Your task to perform on an android device: Open Youtube and go to the subscriptions tab Image 0: 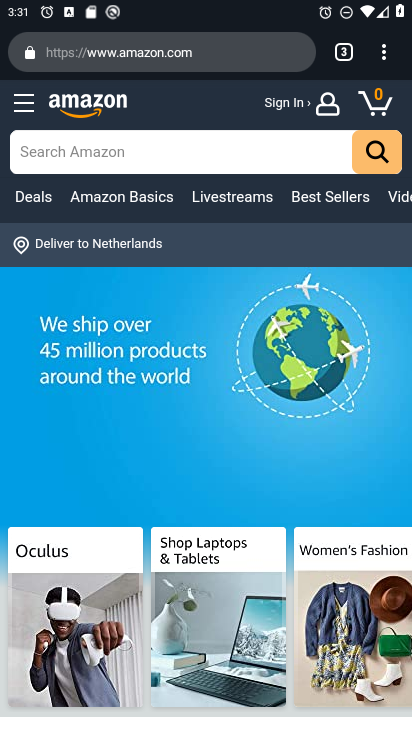
Step 0: press home button
Your task to perform on an android device: Open Youtube and go to the subscriptions tab Image 1: 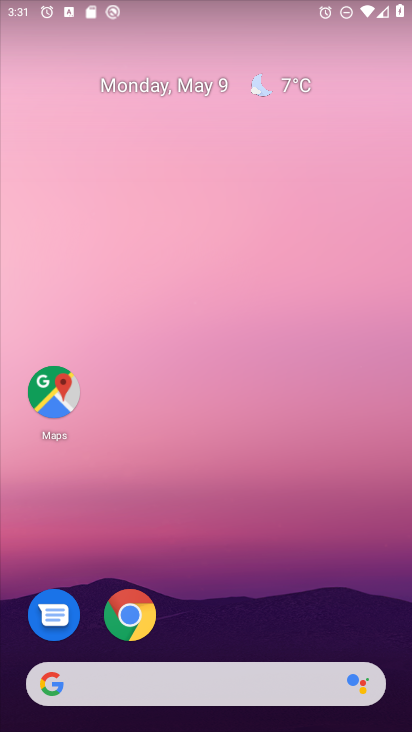
Step 1: drag from (374, 630) to (317, 105)
Your task to perform on an android device: Open Youtube and go to the subscriptions tab Image 2: 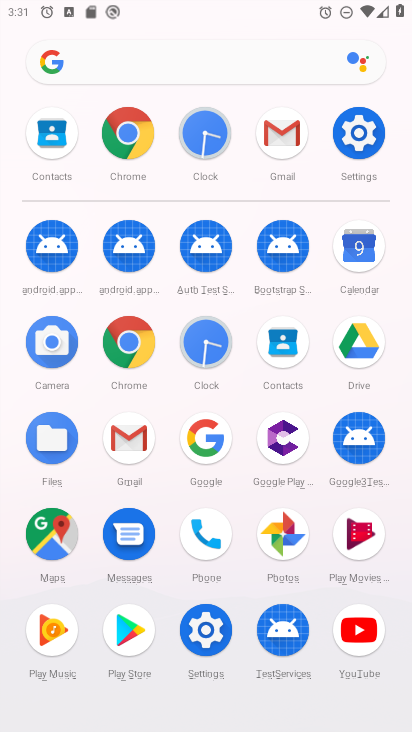
Step 2: click (352, 629)
Your task to perform on an android device: Open Youtube and go to the subscriptions tab Image 3: 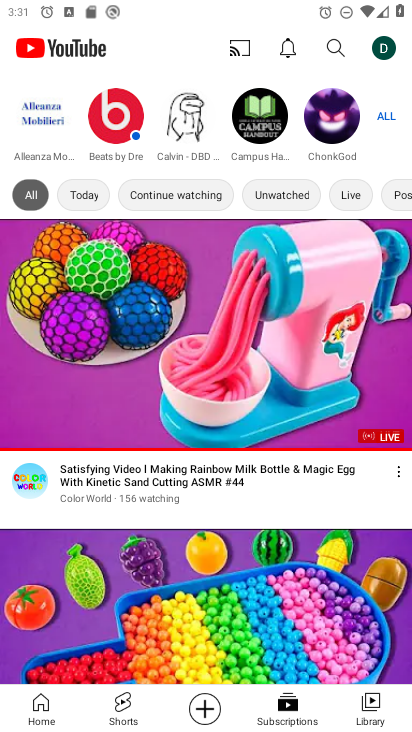
Step 3: task complete